Your task to perform on an android device: toggle pop-ups in chrome Image 0: 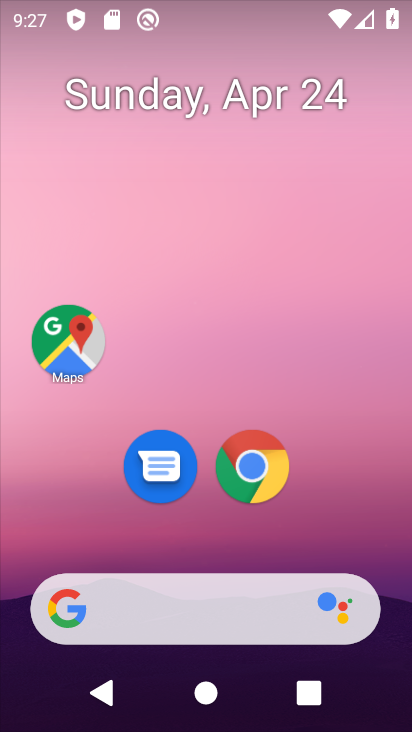
Step 0: click (270, 484)
Your task to perform on an android device: toggle pop-ups in chrome Image 1: 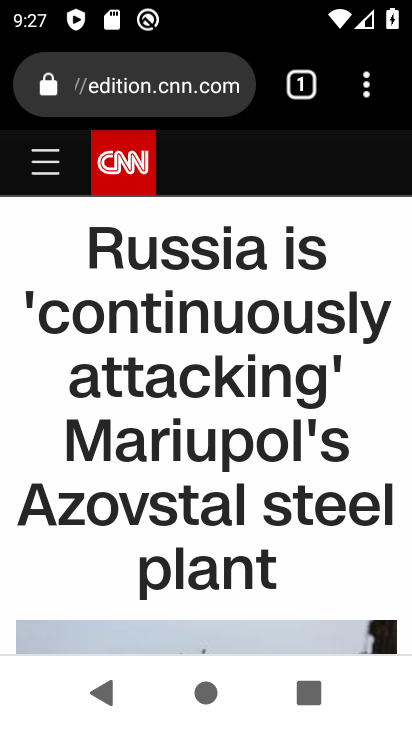
Step 1: click (368, 111)
Your task to perform on an android device: toggle pop-ups in chrome Image 2: 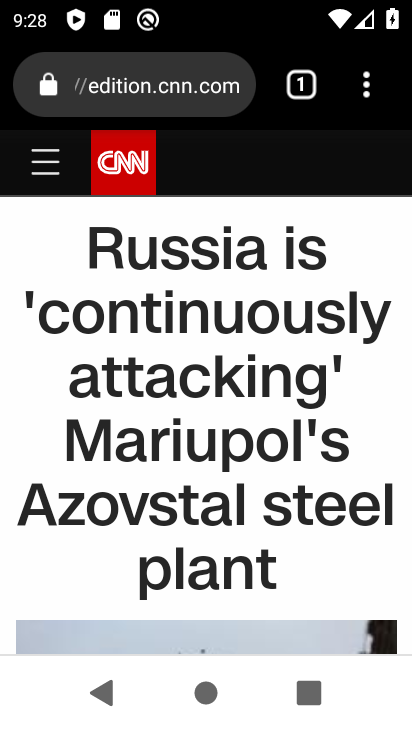
Step 2: click (362, 95)
Your task to perform on an android device: toggle pop-ups in chrome Image 3: 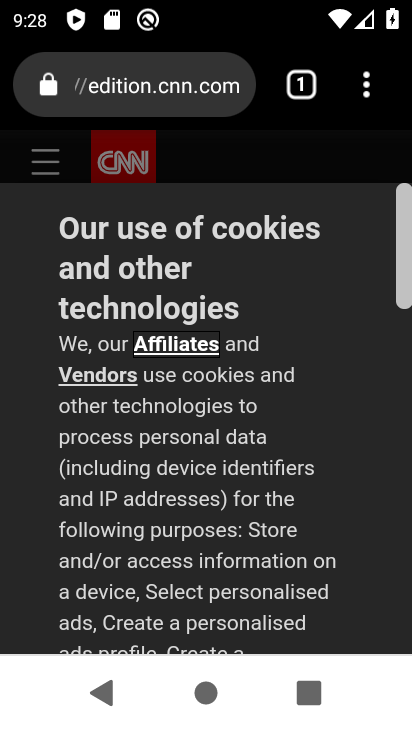
Step 3: click (362, 95)
Your task to perform on an android device: toggle pop-ups in chrome Image 4: 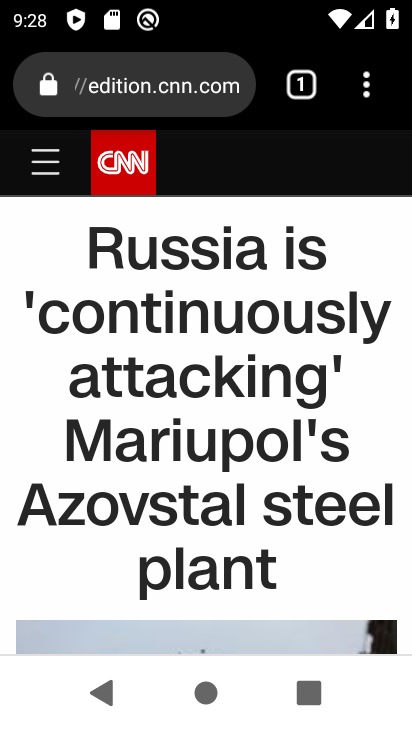
Step 4: click (366, 100)
Your task to perform on an android device: toggle pop-ups in chrome Image 5: 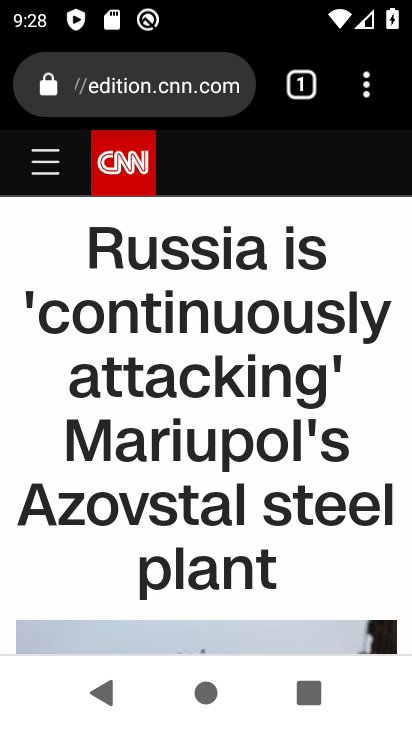
Step 5: click (366, 100)
Your task to perform on an android device: toggle pop-ups in chrome Image 6: 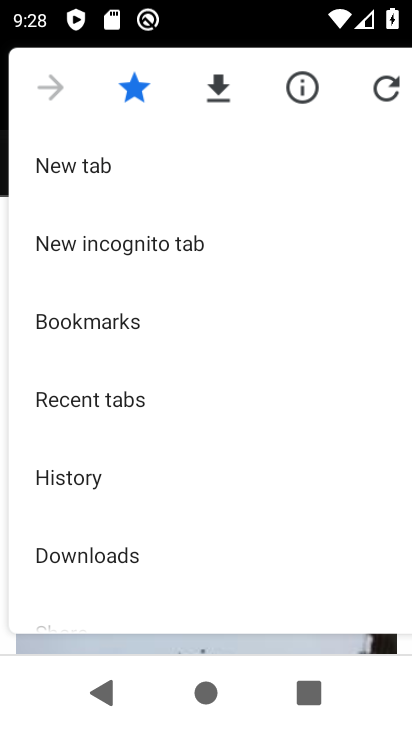
Step 6: drag from (147, 509) to (116, 126)
Your task to perform on an android device: toggle pop-ups in chrome Image 7: 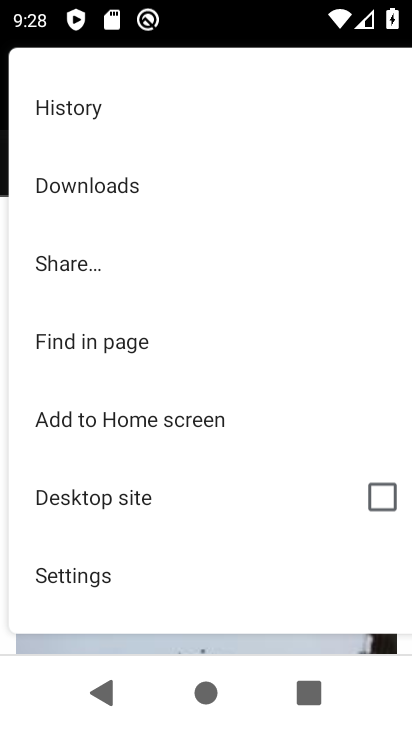
Step 7: click (103, 569)
Your task to perform on an android device: toggle pop-ups in chrome Image 8: 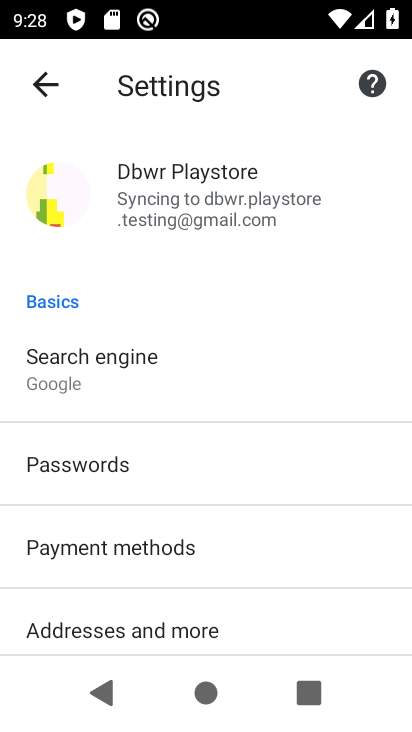
Step 8: drag from (229, 596) to (166, 170)
Your task to perform on an android device: toggle pop-ups in chrome Image 9: 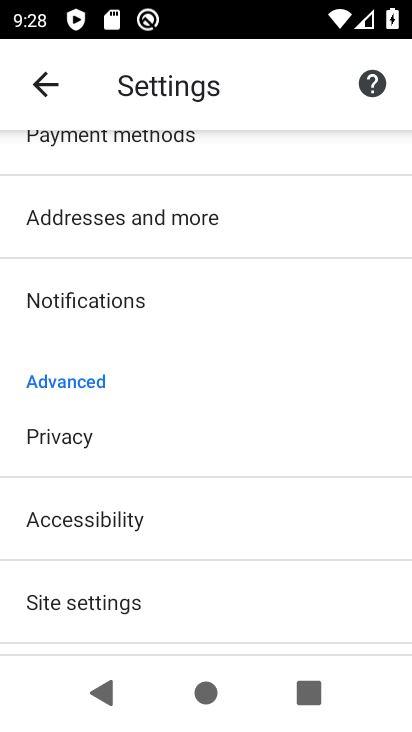
Step 9: click (97, 590)
Your task to perform on an android device: toggle pop-ups in chrome Image 10: 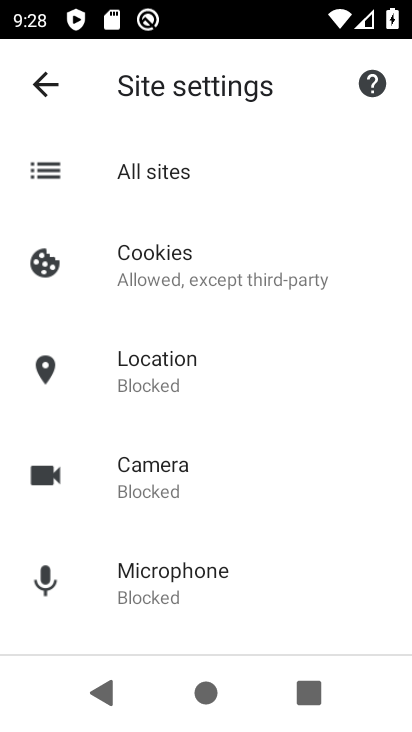
Step 10: drag from (205, 578) to (172, 276)
Your task to perform on an android device: toggle pop-ups in chrome Image 11: 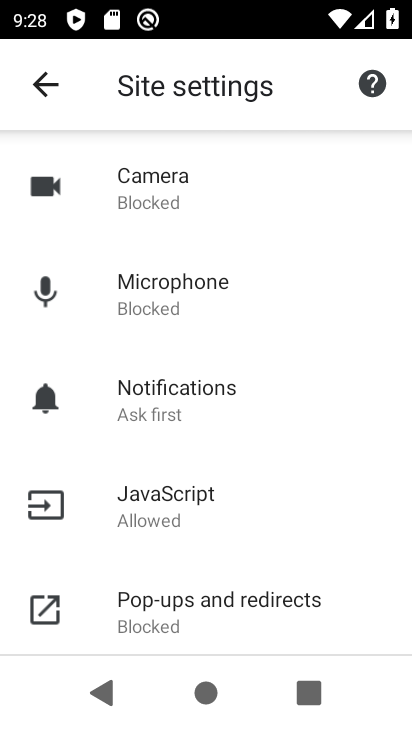
Step 11: click (166, 631)
Your task to perform on an android device: toggle pop-ups in chrome Image 12: 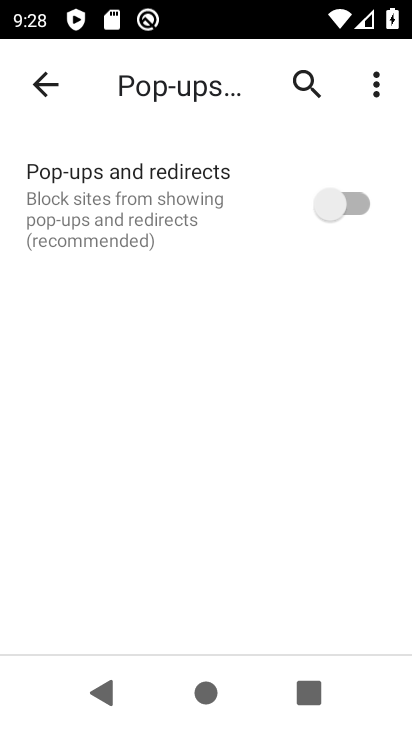
Step 12: click (345, 197)
Your task to perform on an android device: toggle pop-ups in chrome Image 13: 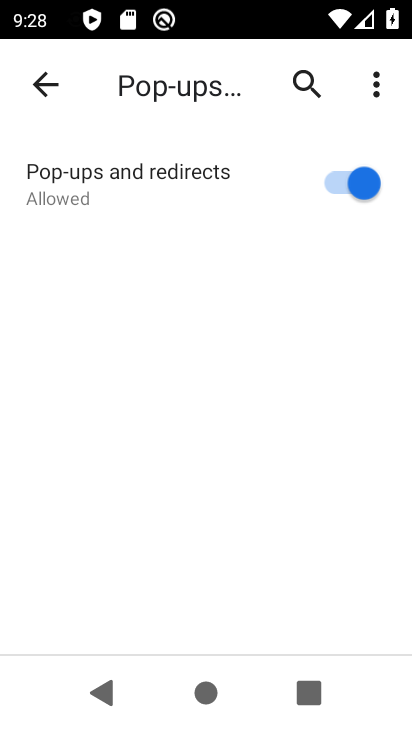
Step 13: task complete